Your task to perform on an android device: toggle data saver in the chrome app Image 0: 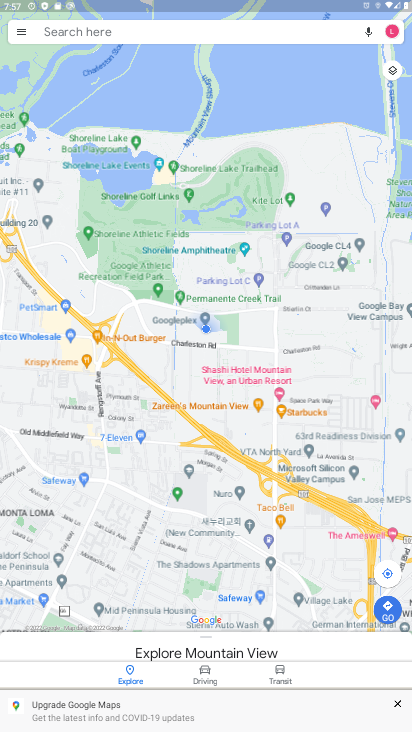
Step 0: click (132, 23)
Your task to perform on an android device: toggle data saver in the chrome app Image 1: 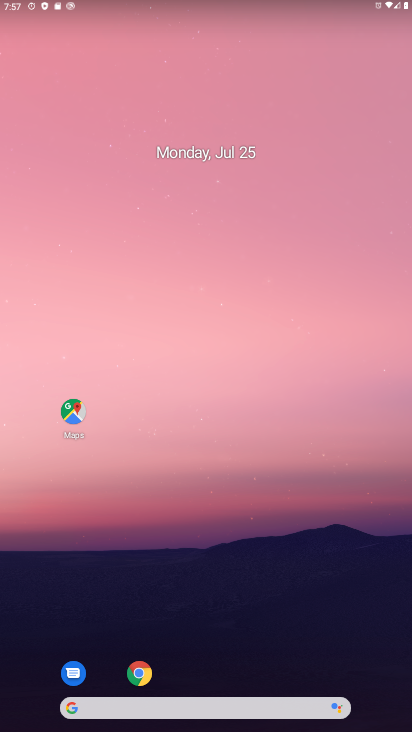
Step 1: drag from (269, 601) to (164, 2)
Your task to perform on an android device: toggle data saver in the chrome app Image 2: 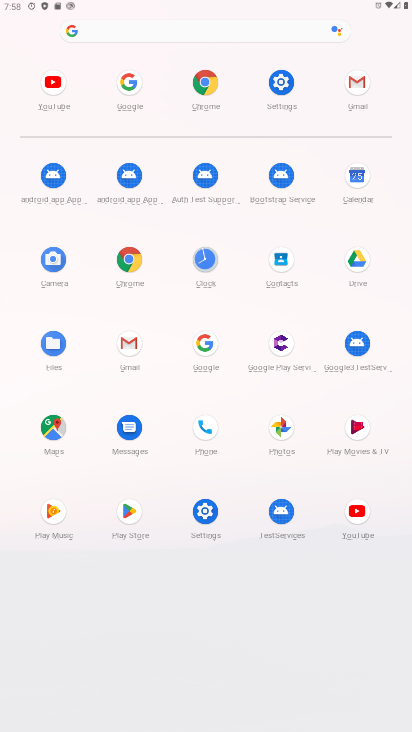
Step 2: click (205, 79)
Your task to perform on an android device: toggle data saver in the chrome app Image 3: 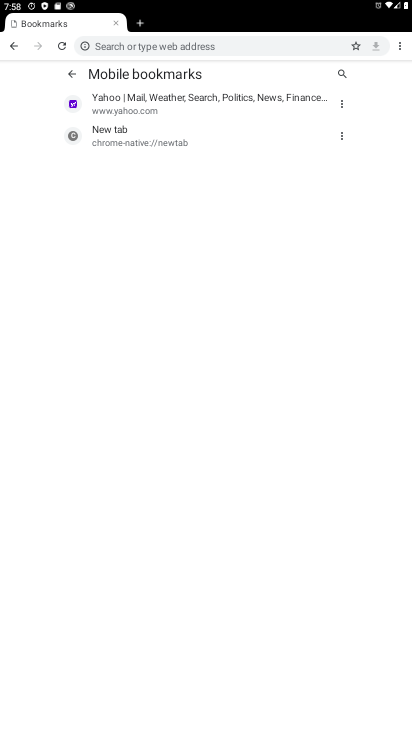
Step 3: click (401, 39)
Your task to perform on an android device: toggle data saver in the chrome app Image 4: 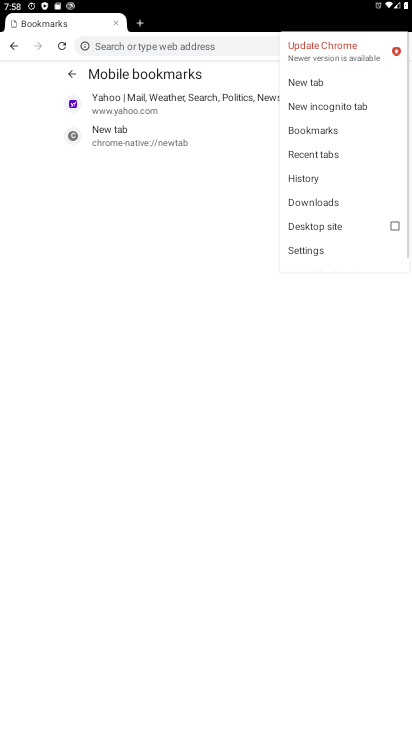
Step 4: click (319, 243)
Your task to perform on an android device: toggle data saver in the chrome app Image 5: 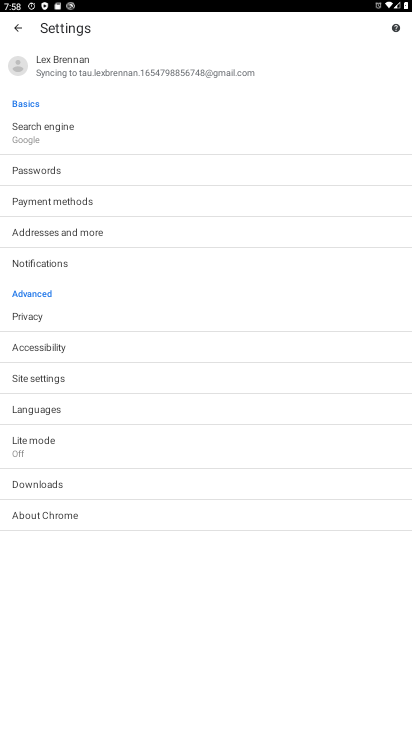
Step 5: click (57, 450)
Your task to perform on an android device: toggle data saver in the chrome app Image 6: 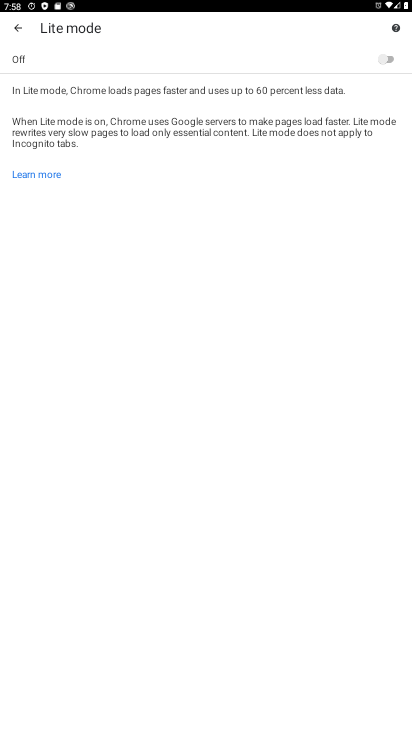
Step 6: click (382, 48)
Your task to perform on an android device: toggle data saver in the chrome app Image 7: 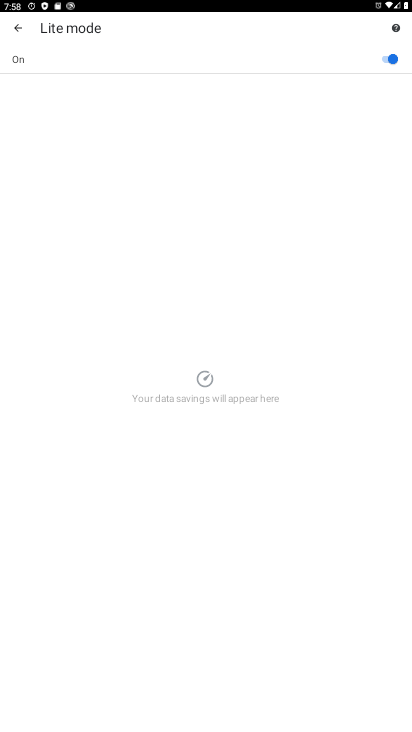
Step 7: task complete